Your task to perform on an android device: Search for pizza restaurants on Maps Image 0: 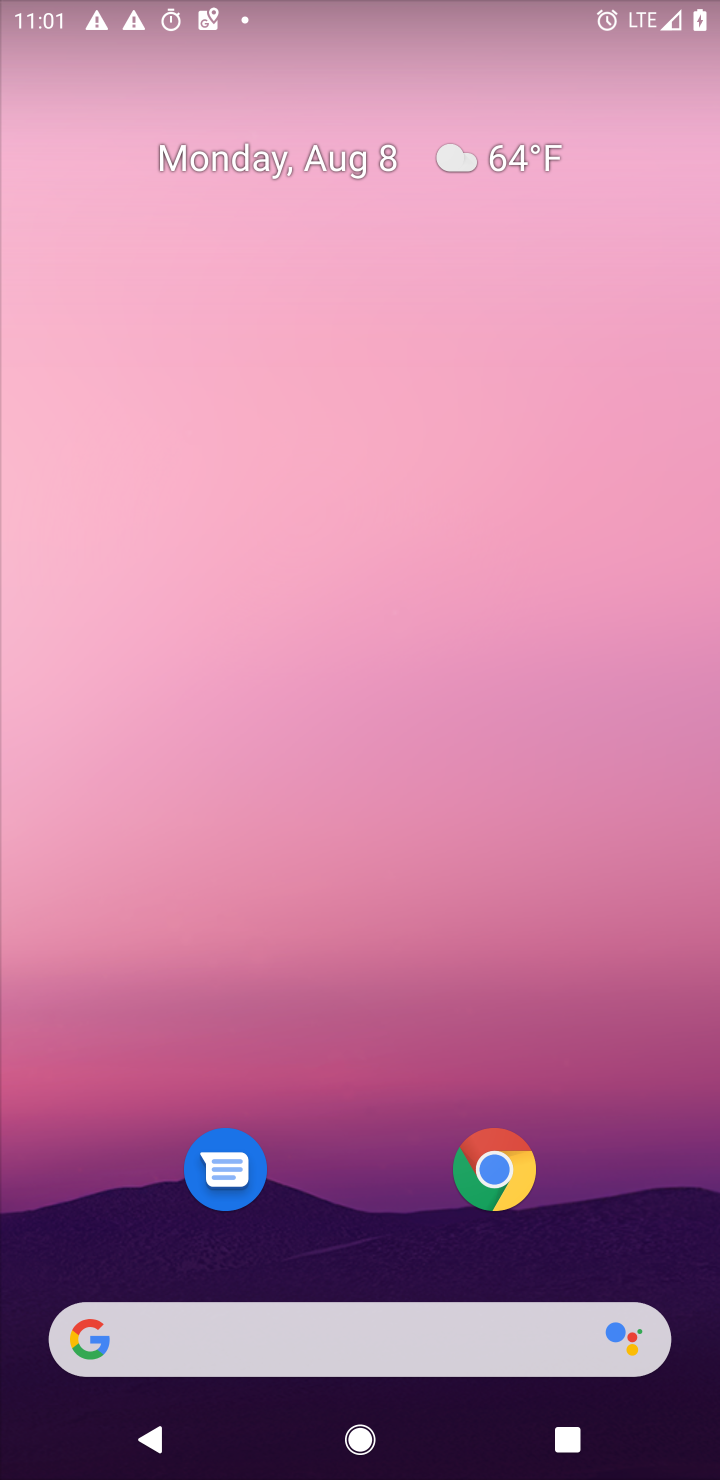
Step 0: drag from (309, 1132) to (546, 174)
Your task to perform on an android device: Search for pizza restaurants on Maps Image 1: 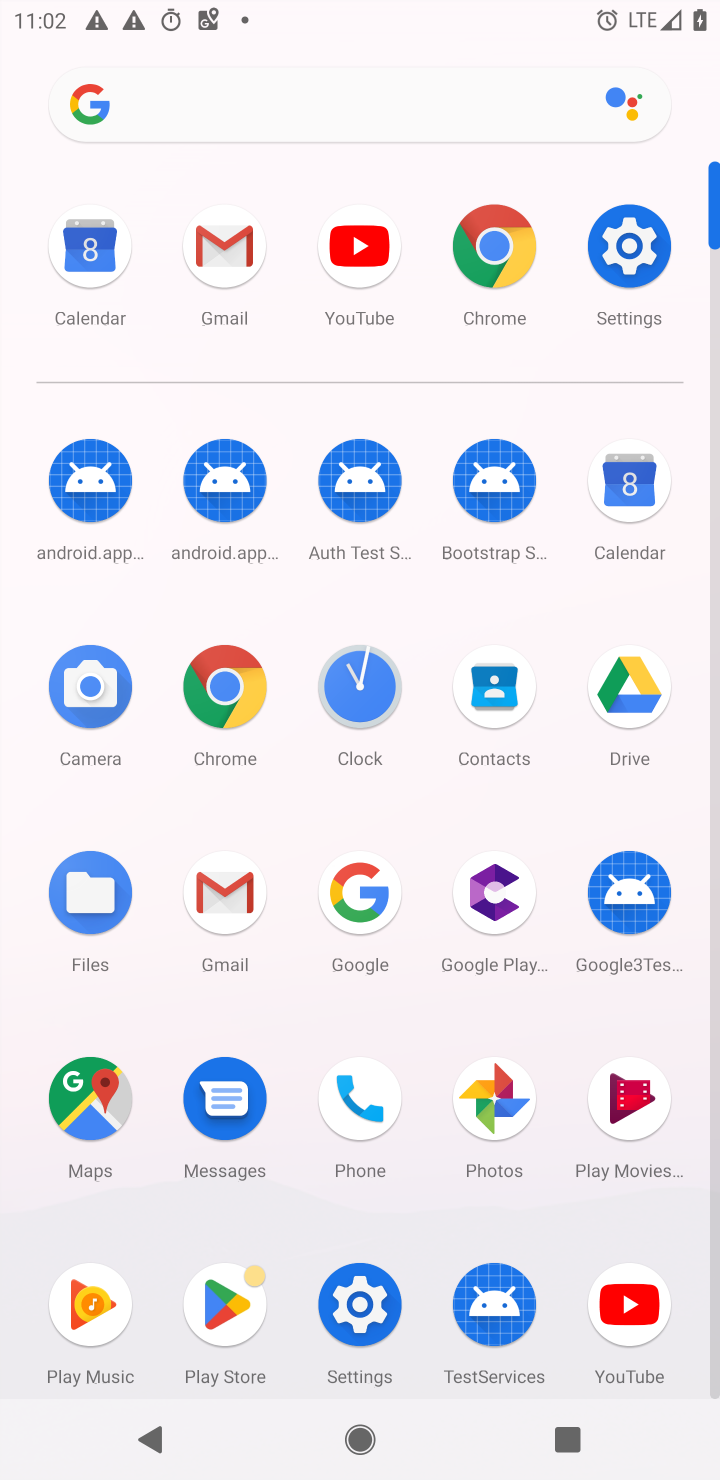
Step 1: click (102, 1109)
Your task to perform on an android device: Search for pizza restaurants on Maps Image 2: 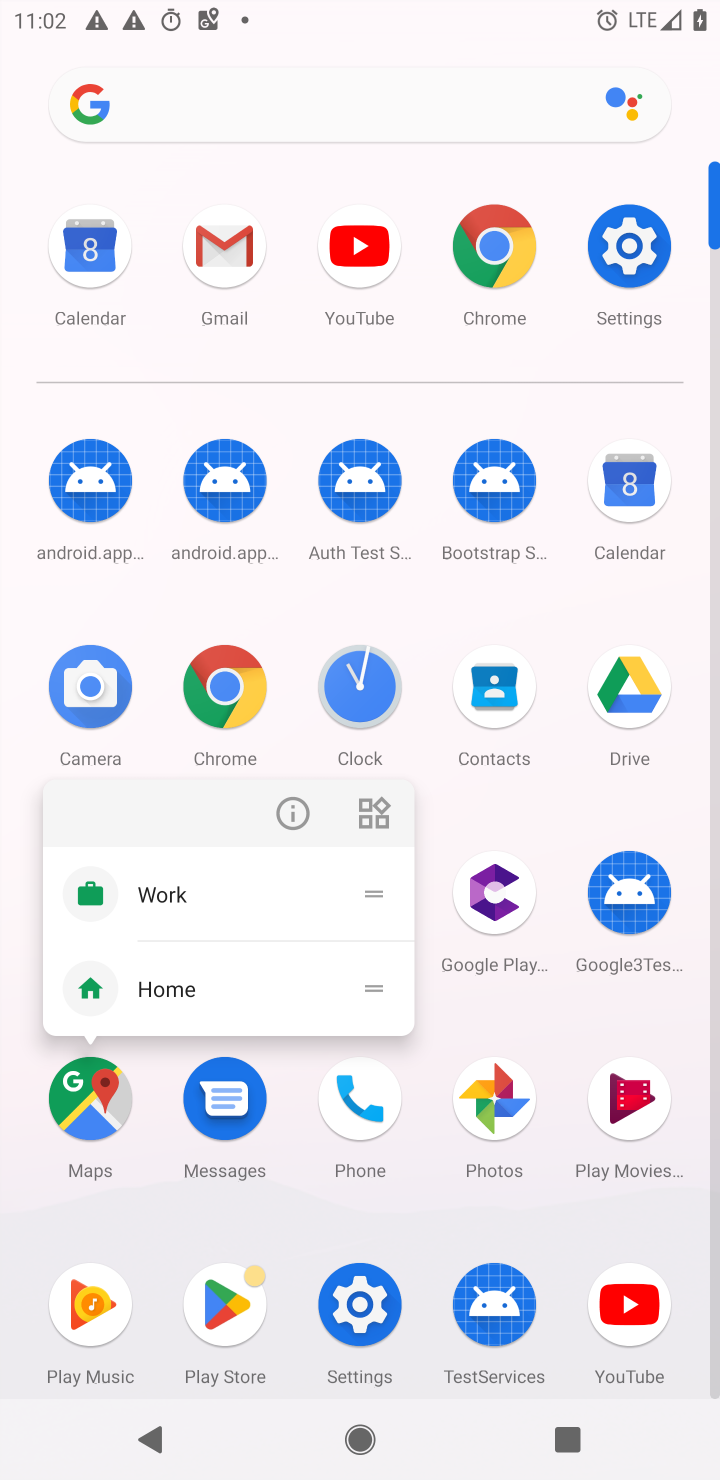
Step 2: click (106, 1093)
Your task to perform on an android device: Search for pizza restaurants on Maps Image 3: 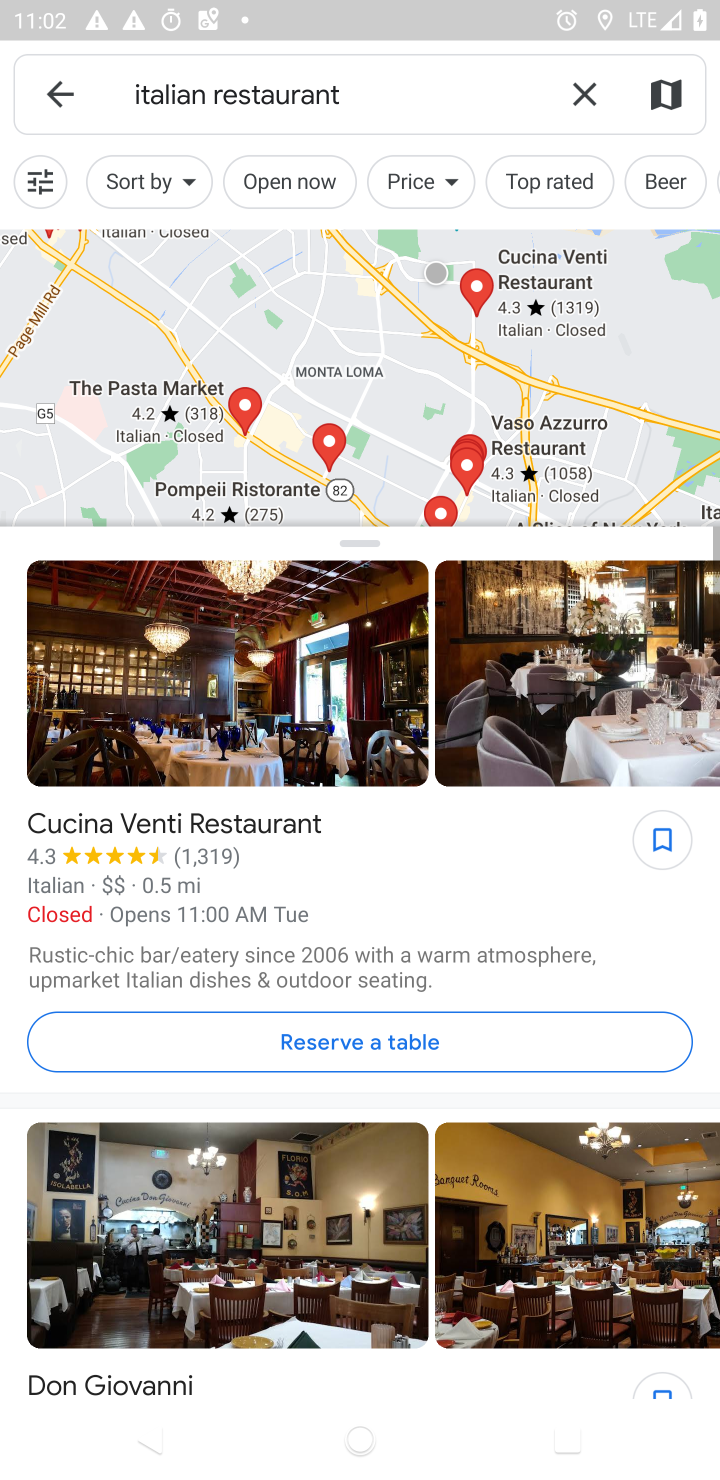
Step 3: click (595, 86)
Your task to perform on an android device: Search for pizza restaurants on Maps Image 4: 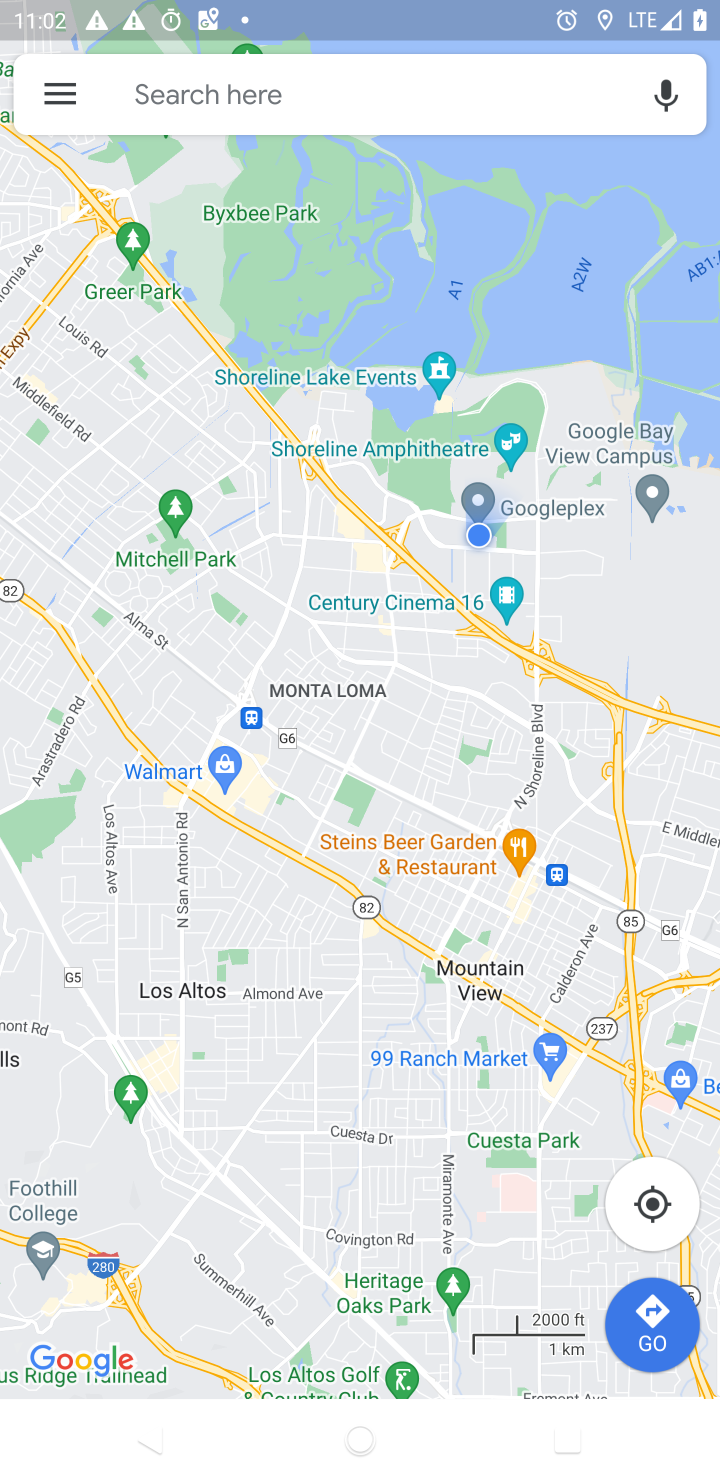
Step 4: click (368, 87)
Your task to perform on an android device: Search for pizza restaurants on Maps Image 5: 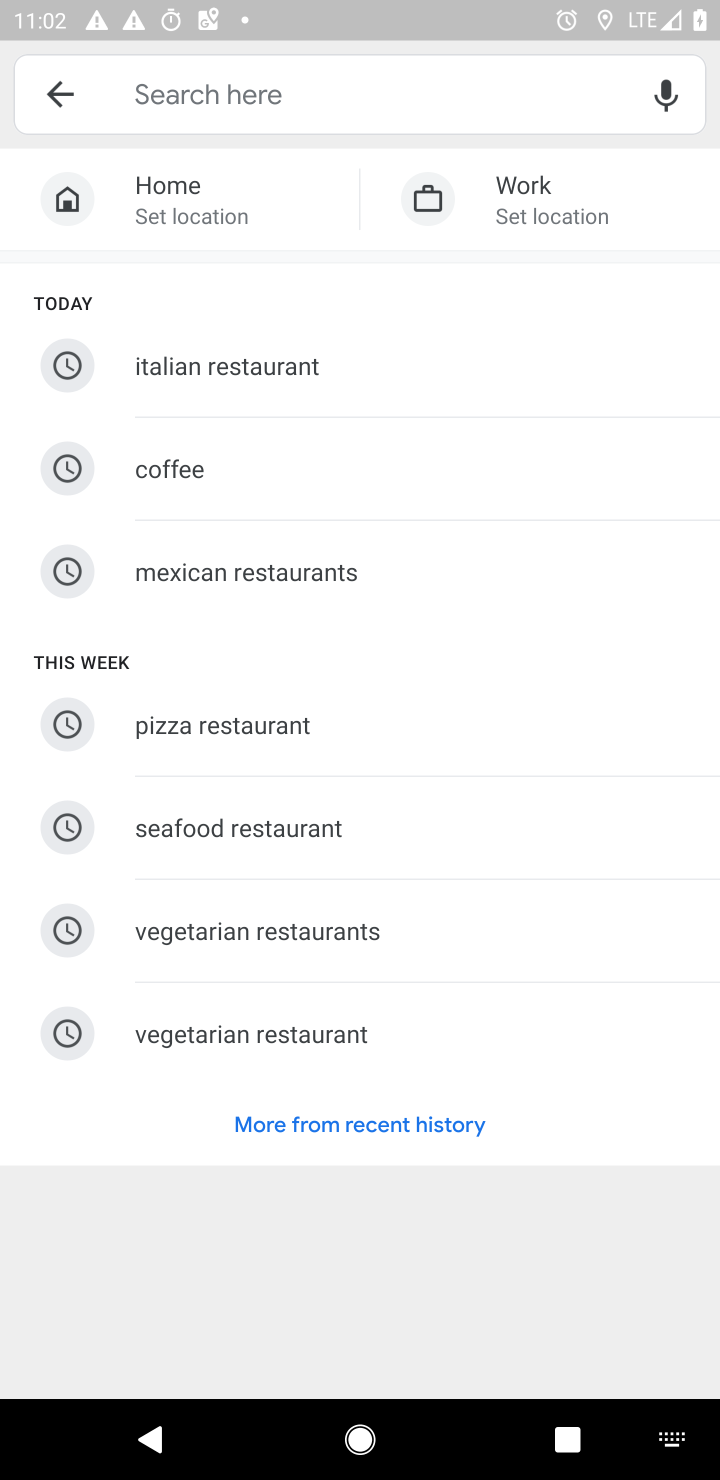
Step 5: click (175, 713)
Your task to perform on an android device: Search for pizza restaurants on Maps Image 6: 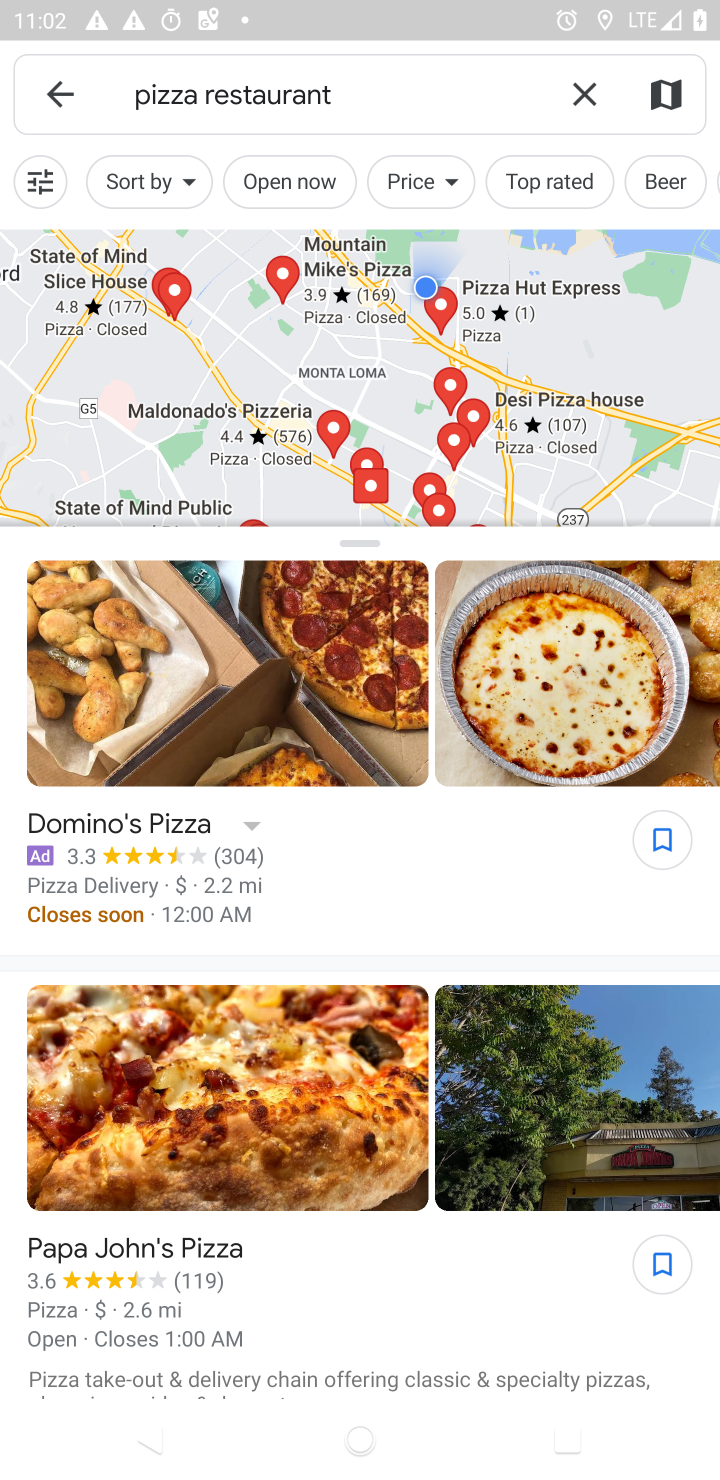
Step 6: task complete